Your task to perform on an android device: change the clock display to digital Image 0: 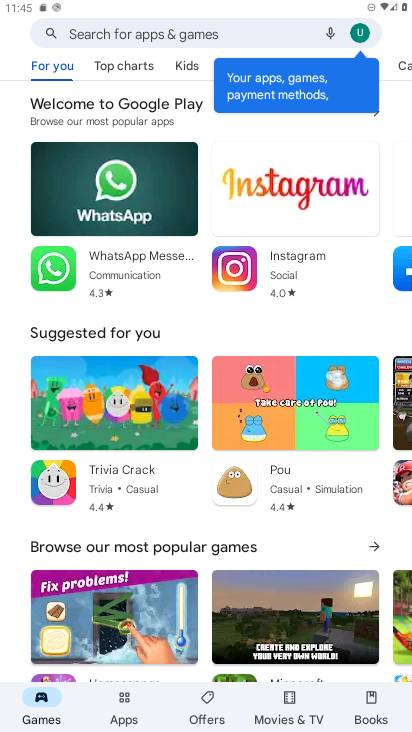
Step 0: press home button
Your task to perform on an android device: change the clock display to digital Image 1: 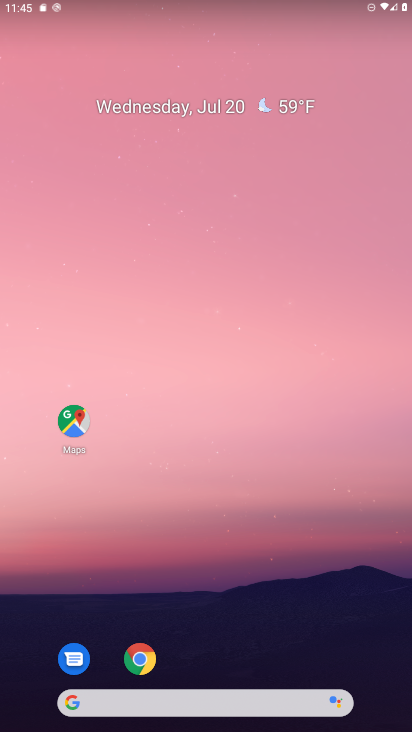
Step 1: drag from (42, 564) to (261, 135)
Your task to perform on an android device: change the clock display to digital Image 2: 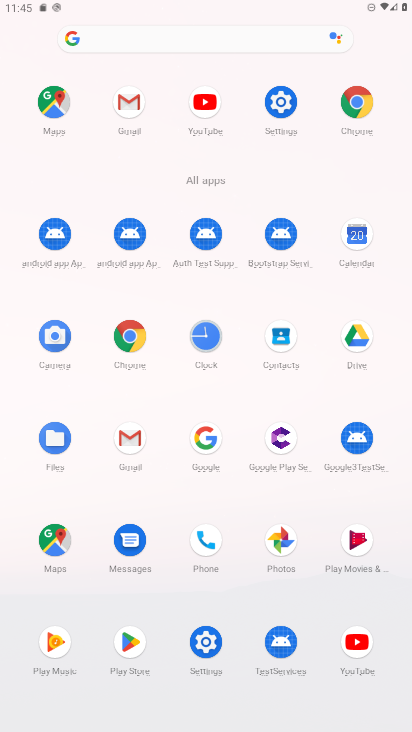
Step 2: click (205, 345)
Your task to perform on an android device: change the clock display to digital Image 3: 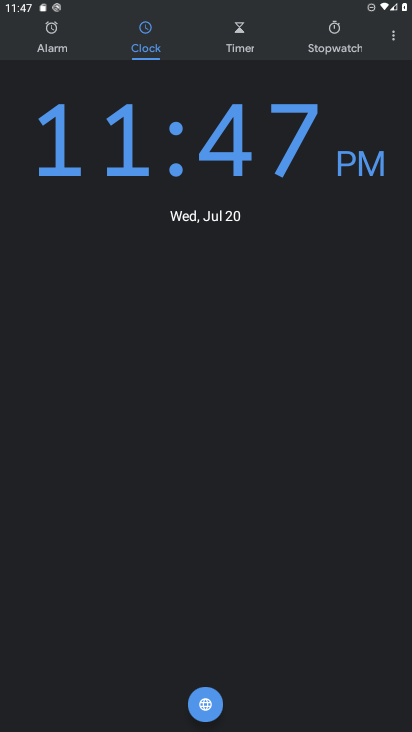
Step 3: click (394, 35)
Your task to perform on an android device: change the clock display to digital Image 4: 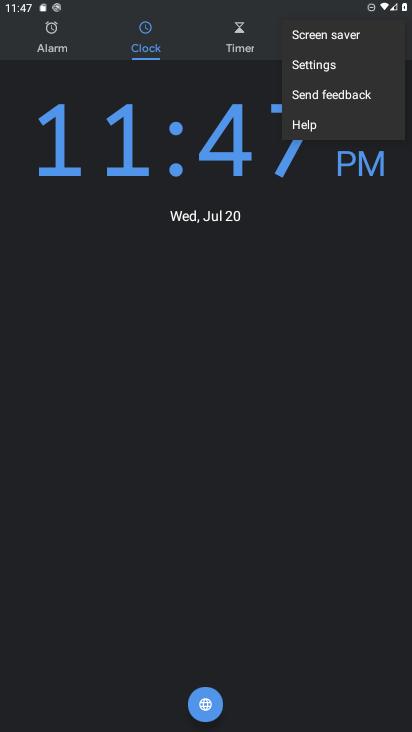
Step 4: click (333, 62)
Your task to perform on an android device: change the clock display to digital Image 5: 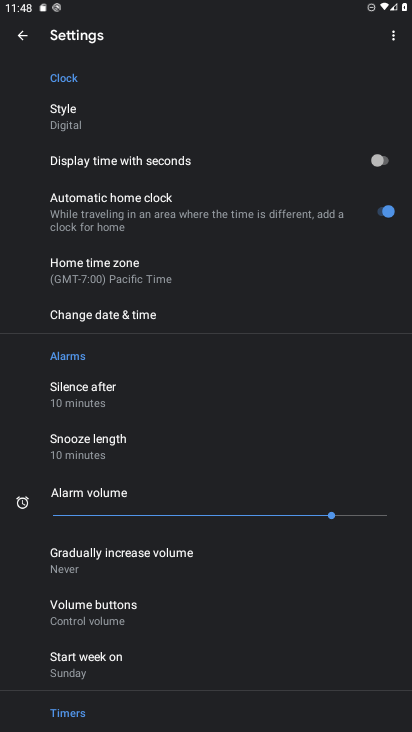
Step 5: task complete